Your task to perform on an android device: open app "Messenger Lite" (install if not already installed) Image 0: 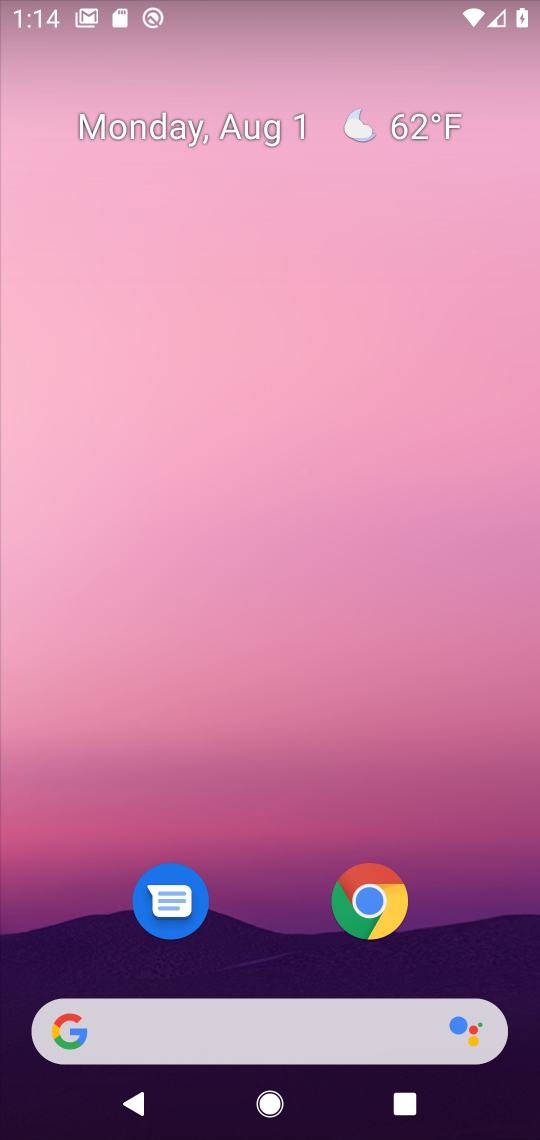
Step 0: press home button
Your task to perform on an android device: open app "Messenger Lite" (install if not already installed) Image 1: 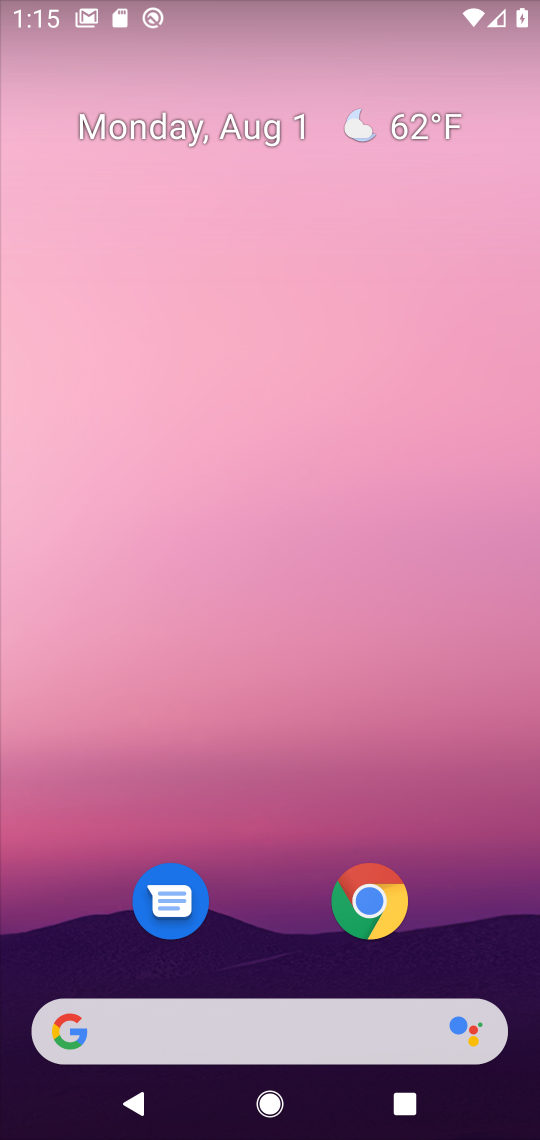
Step 1: drag from (333, 608) to (244, 32)
Your task to perform on an android device: open app "Messenger Lite" (install if not already installed) Image 2: 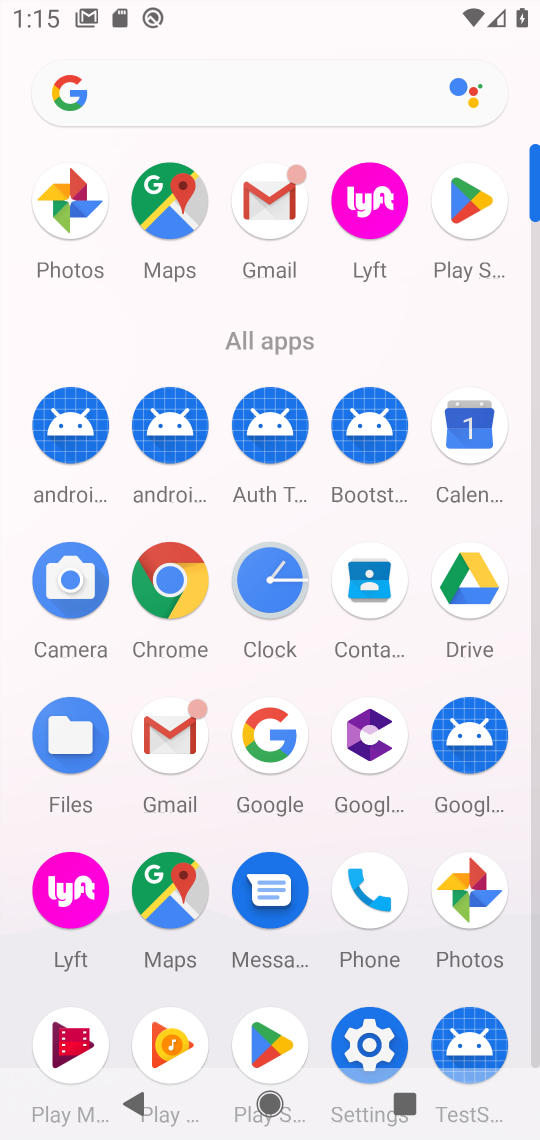
Step 2: click (472, 197)
Your task to perform on an android device: open app "Messenger Lite" (install if not already installed) Image 3: 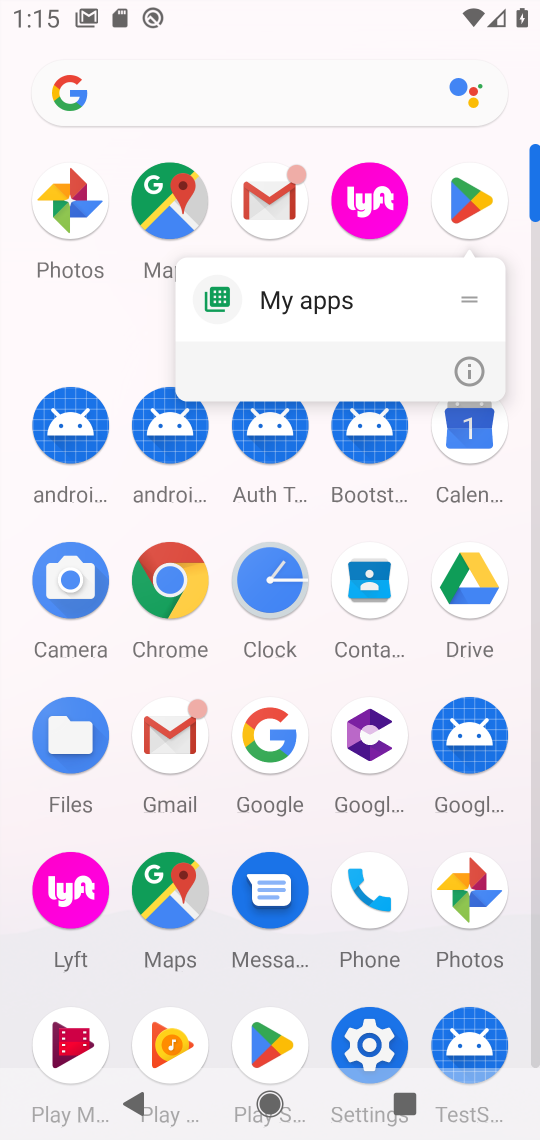
Step 3: click (472, 197)
Your task to perform on an android device: open app "Messenger Lite" (install if not already installed) Image 4: 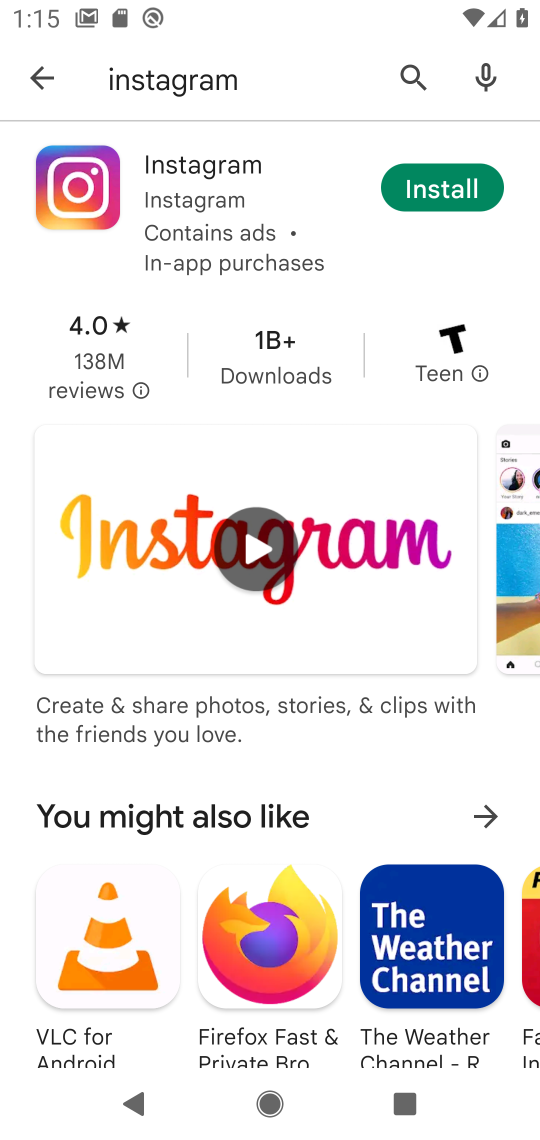
Step 4: click (424, 83)
Your task to perform on an android device: open app "Messenger Lite" (install if not already installed) Image 5: 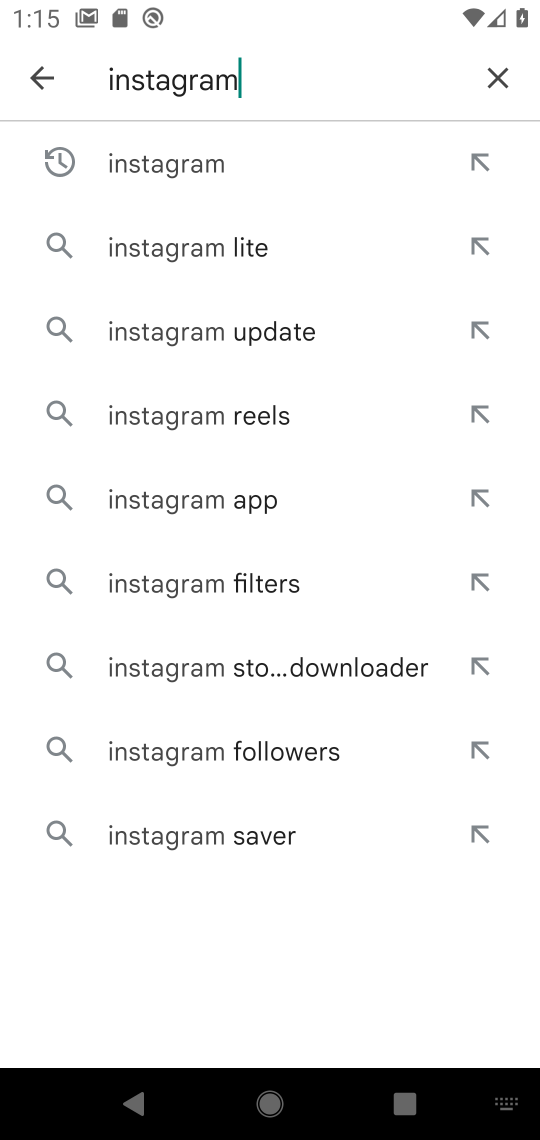
Step 5: click (488, 71)
Your task to perform on an android device: open app "Messenger Lite" (install if not already installed) Image 6: 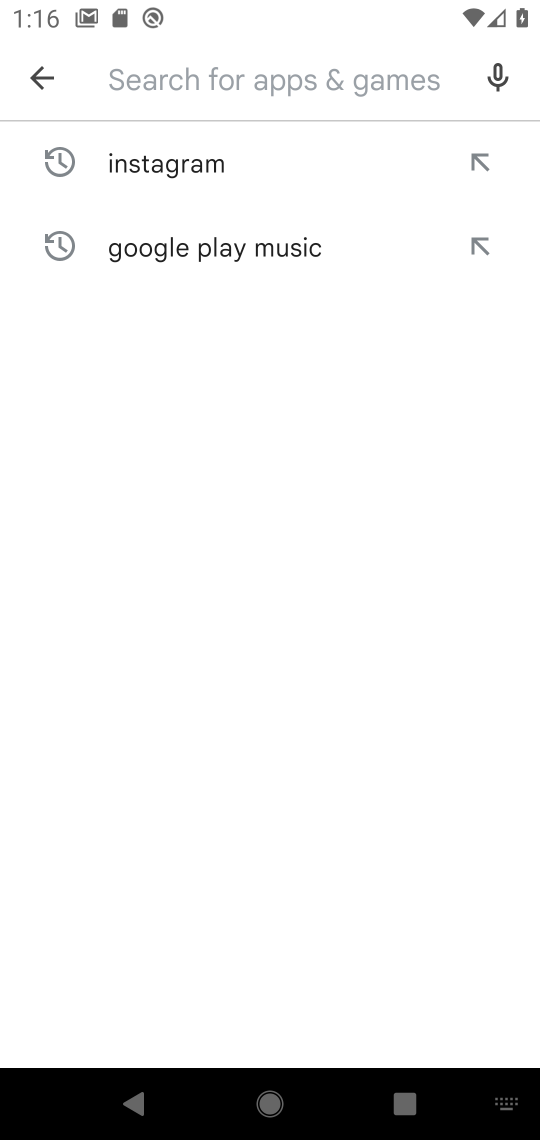
Step 6: type "Messenger Lite"
Your task to perform on an android device: open app "Messenger Lite" (install if not already installed) Image 7: 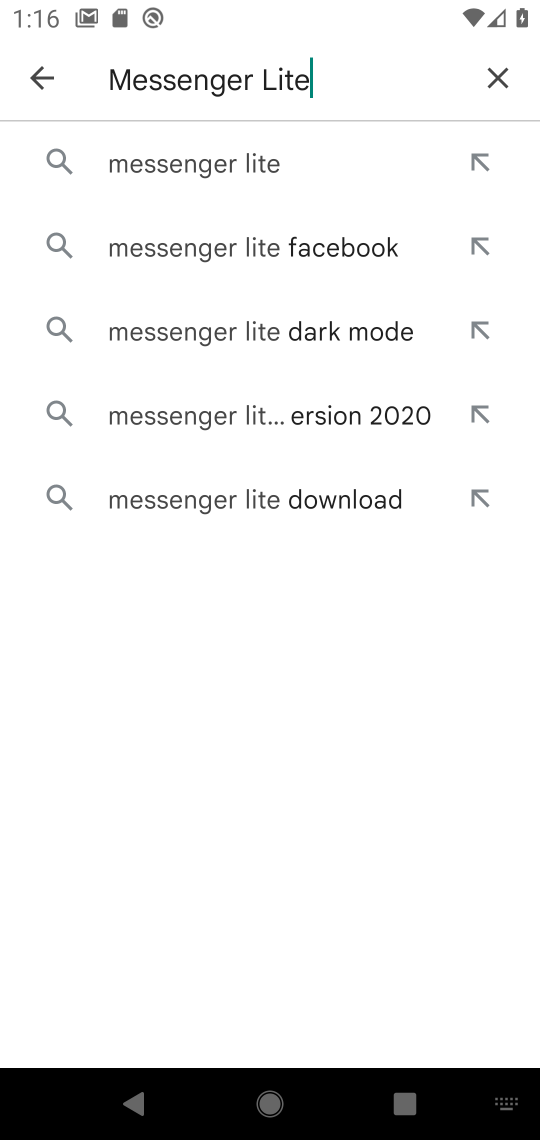
Step 7: click (209, 170)
Your task to perform on an android device: open app "Messenger Lite" (install if not already installed) Image 8: 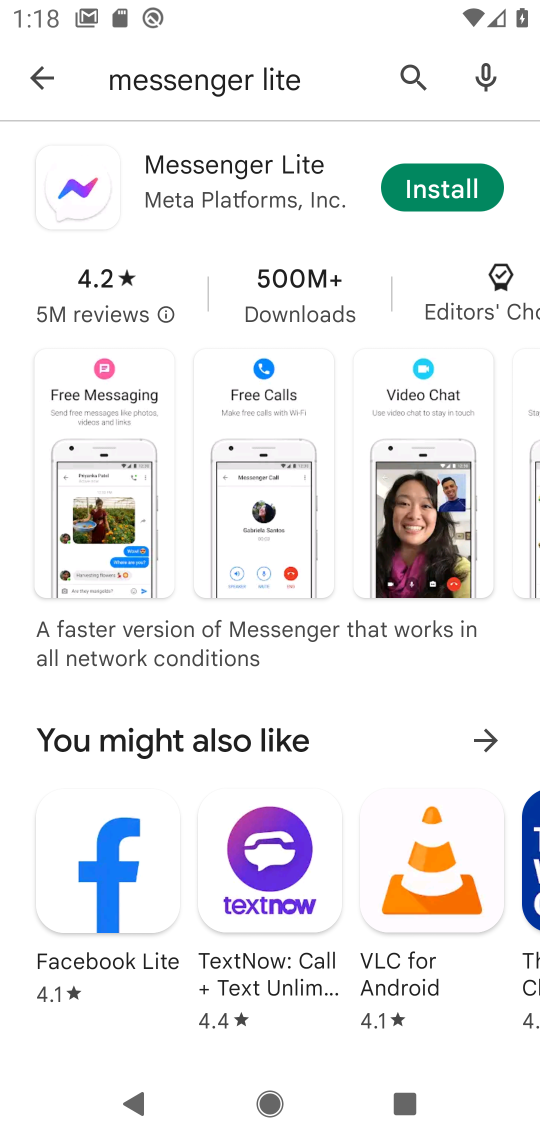
Step 8: click (460, 194)
Your task to perform on an android device: open app "Messenger Lite" (install if not already installed) Image 9: 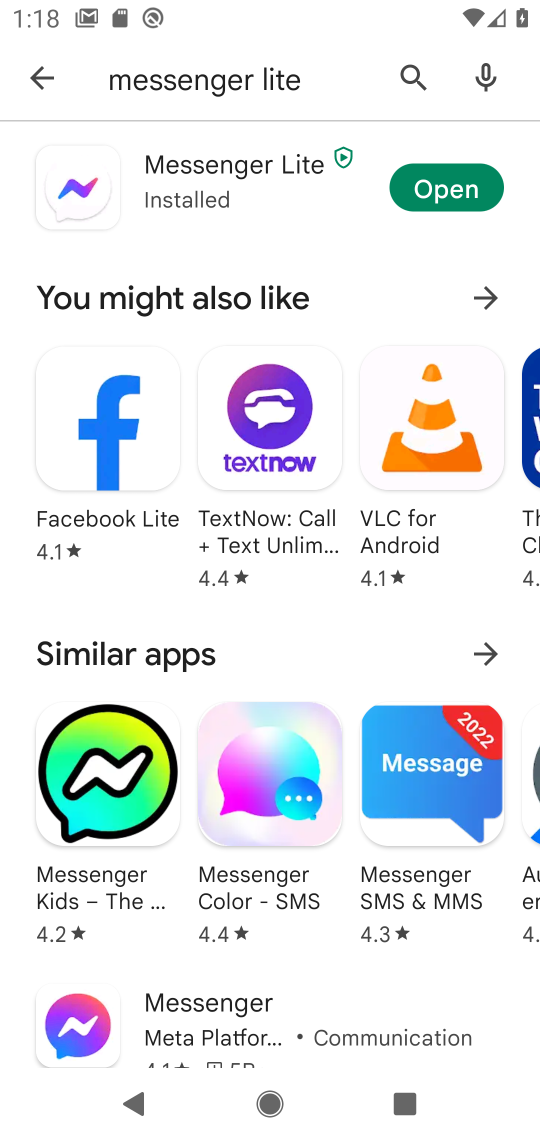
Step 9: click (429, 209)
Your task to perform on an android device: open app "Messenger Lite" (install if not already installed) Image 10: 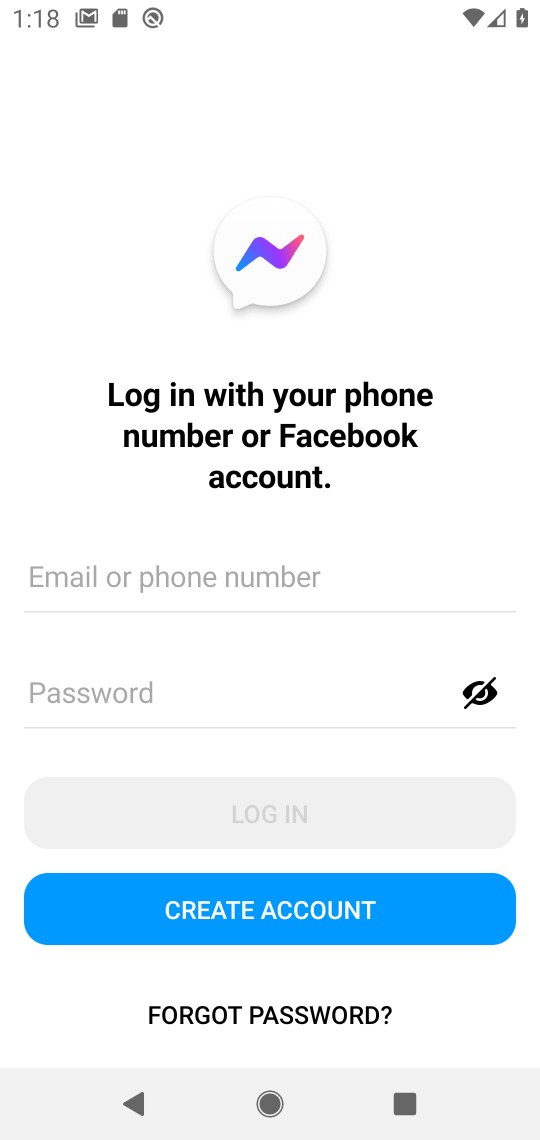
Step 10: task complete